Your task to perform on an android device: turn on data saver in the chrome app Image 0: 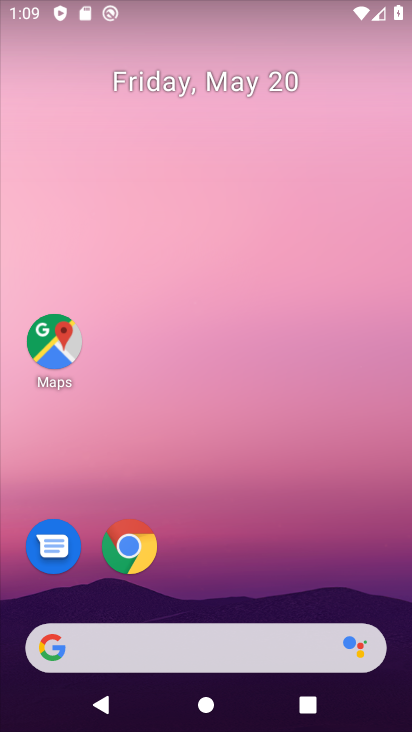
Step 0: click (119, 550)
Your task to perform on an android device: turn on data saver in the chrome app Image 1: 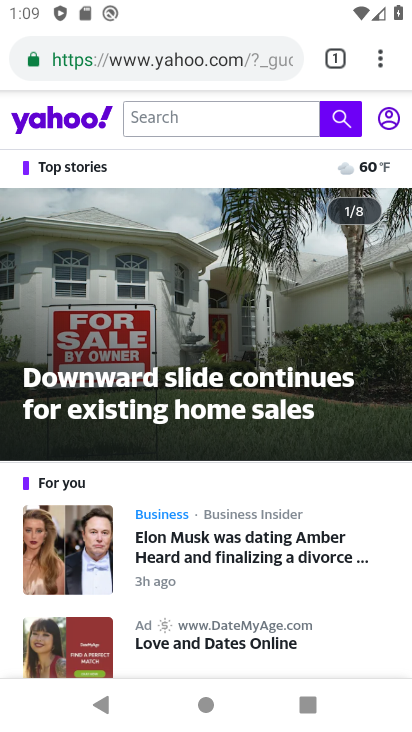
Step 1: click (384, 61)
Your task to perform on an android device: turn on data saver in the chrome app Image 2: 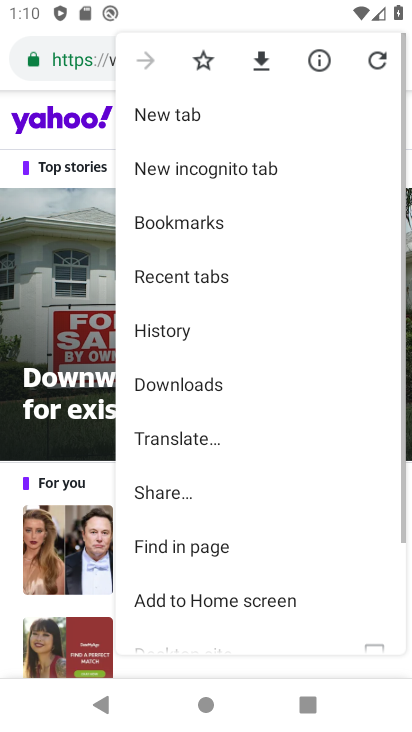
Step 2: drag from (195, 577) to (328, 93)
Your task to perform on an android device: turn on data saver in the chrome app Image 3: 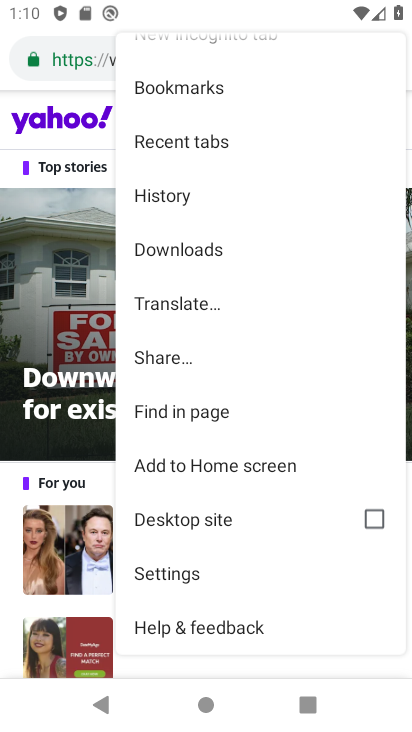
Step 3: click (206, 576)
Your task to perform on an android device: turn on data saver in the chrome app Image 4: 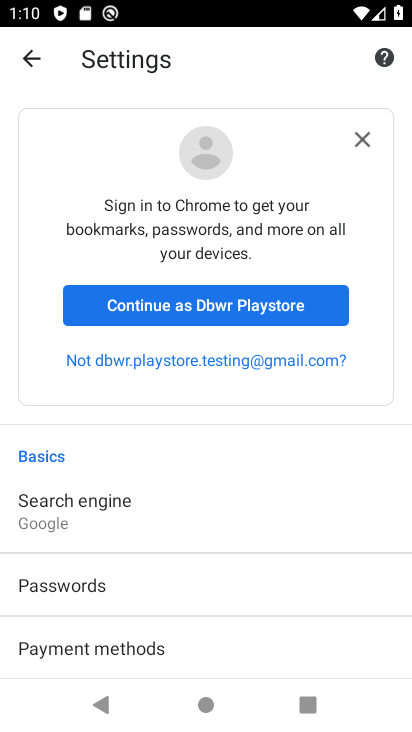
Step 4: click (358, 146)
Your task to perform on an android device: turn on data saver in the chrome app Image 5: 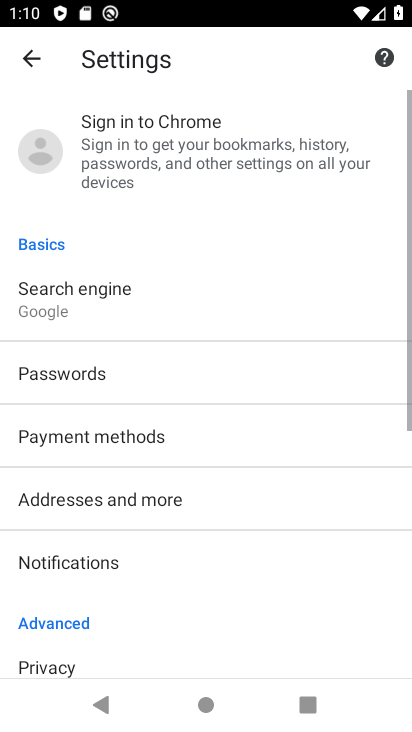
Step 5: drag from (15, 608) to (249, 228)
Your task to perform on an android device: turn on data saver in the chrome app Image 6: 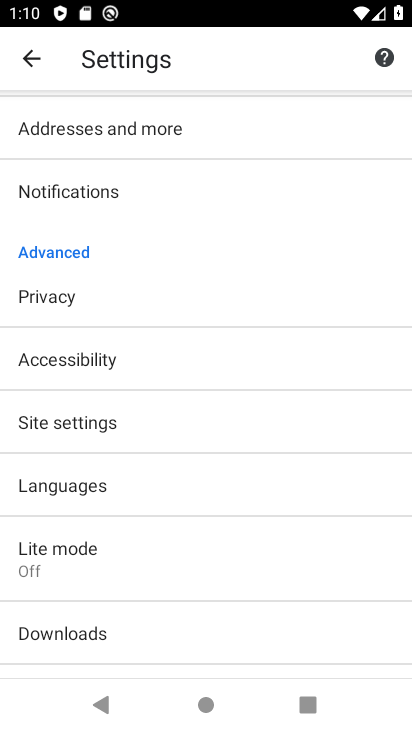
Step 6: drag from (12, 618) to (197, 267)
Your task to perform on an android device: turn on data saver in the chrome app Image 7: 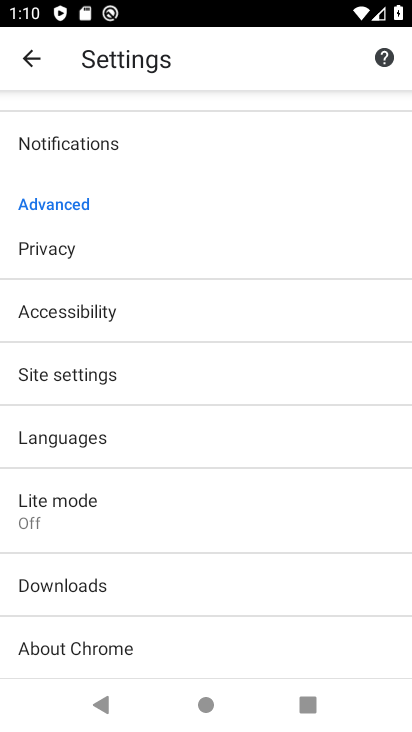
Step 7: click (97, 373)
Your task to perform on an android device: turn on data saver in the chrome app Image 8: 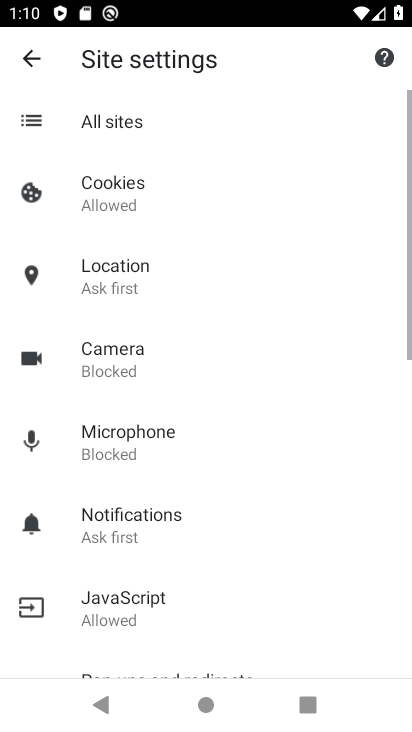
Step 8: drag from (24, 650) to (218, 171)
Your task to perform on an android device: turn on data saver in the chrome app Image 9: 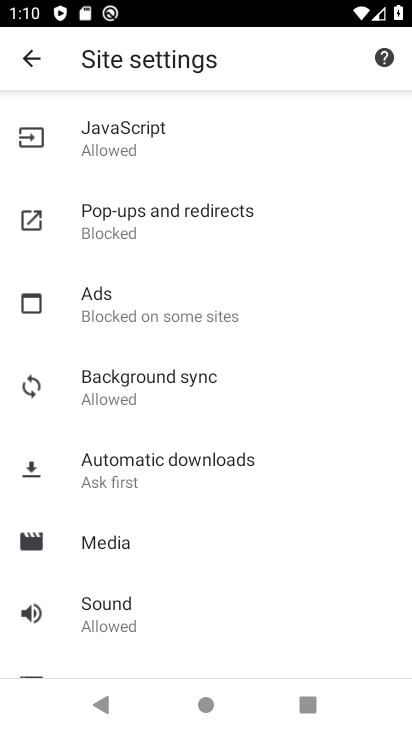
Step 9: drag from (36, 507) to (223, 154)
Your task to perform on an android device: turn on data saver in the chrome app Image 10: 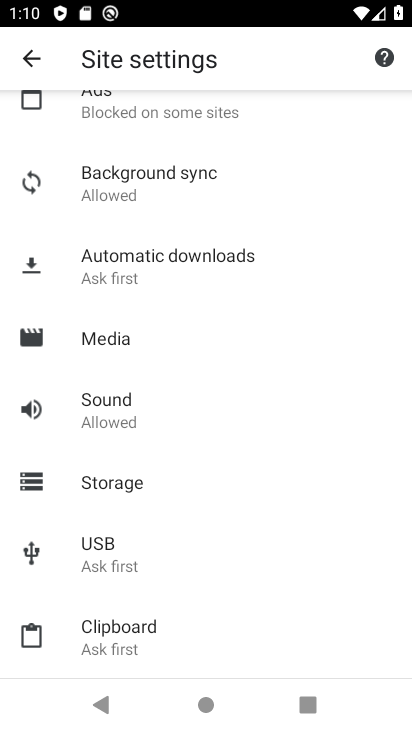
Step 10: drag from (228, 127) to (162, 722)
Your task to perform on an android device: turn on data saver in the chrome app Image 11: 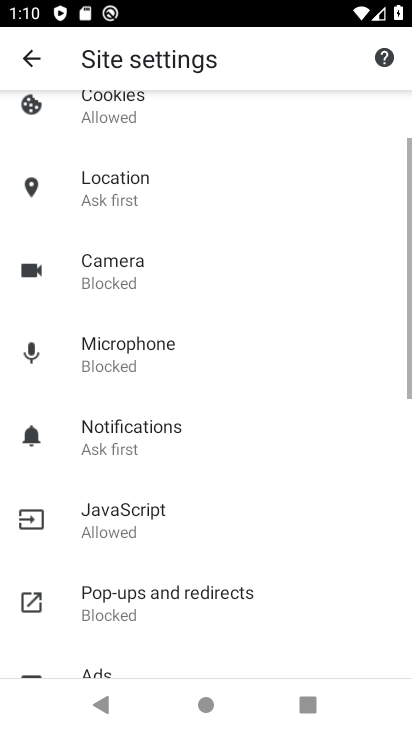
Step 11: drag from (185, 173) to (163, 729)
Your task to perform on an android device: turn on data saver in the chrome app Image 12: 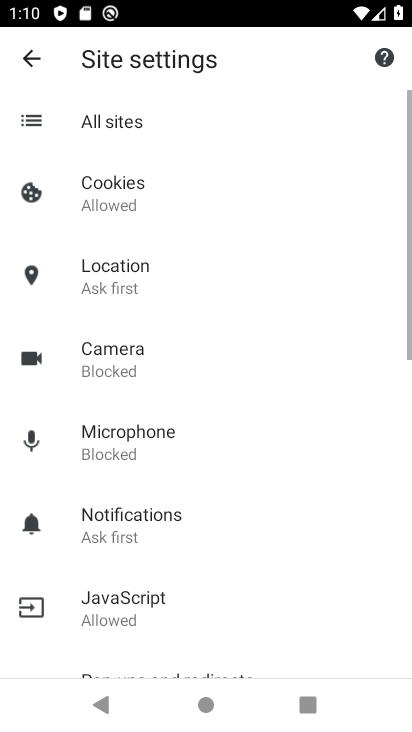
Step 12: drag from (150, 634) to (252, 271)
Your task to perform on an android device: turn on data saver in the chrome app Image 13: 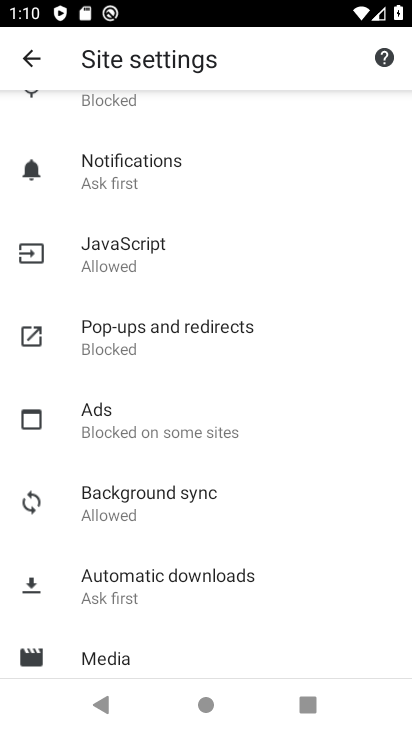
Step 13: drag from (141, 604) to (245, 227)
Your task to perform on an android device: turn on data saver in the chrome app Image 14: 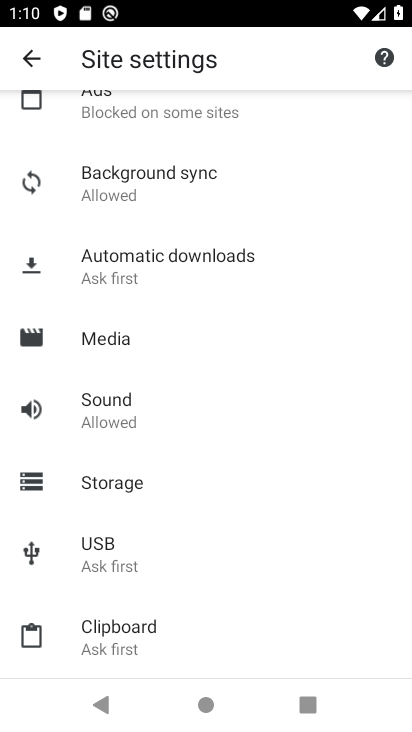
Step 14: drag from (138, 607) to (246, 247)
Your task to perform on an android device: turn on data saver in the chrome app Image 15: 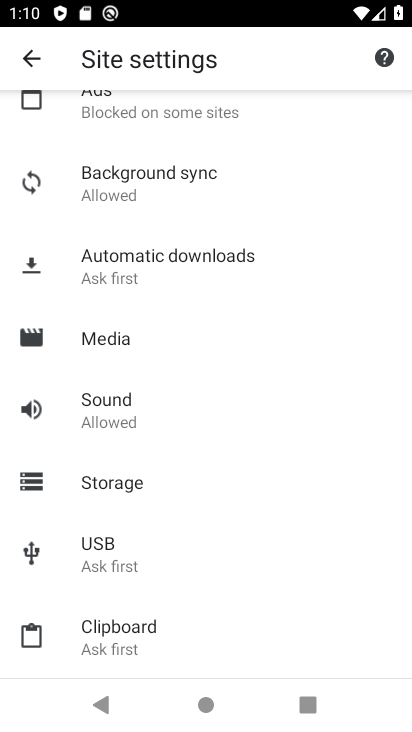
Step 15: drag from (223, 208) to (209, 585)
Your task to perform on an android device: turn on data saver in the chrome app Image 16: 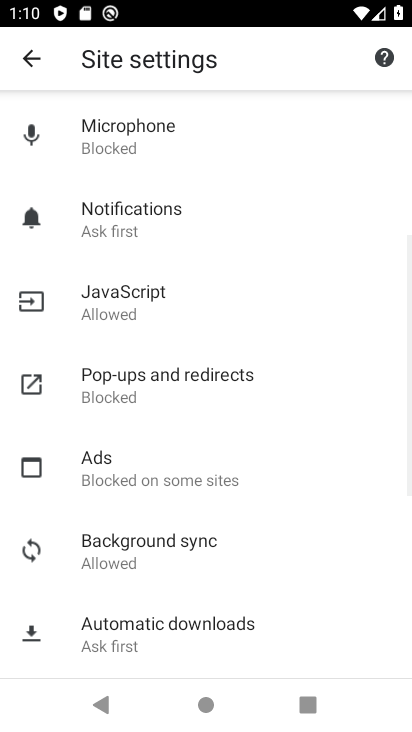
Step 16: drag from (182, 94) to (249, 534)
Your task to perform on an android device: turn on data saver in the chrome app Image 17: 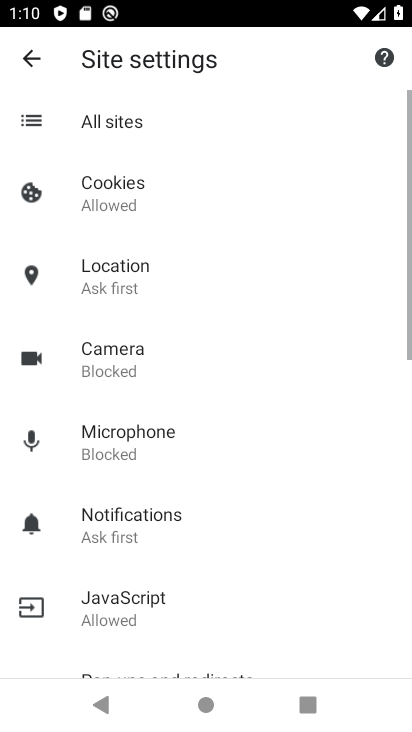
Step 17: press back button
Your task to perform on an android device: turn on data saver in the chrome app Image 18: 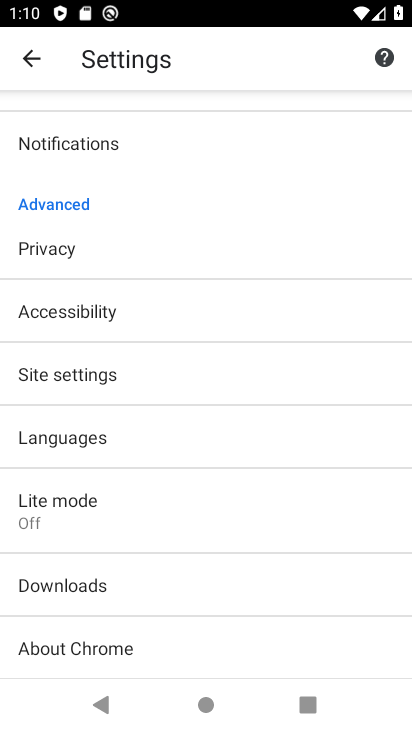
Step 18: click (106, 488)
Your task to perform on an android device: turn on data saver in the chrome app Image 19: 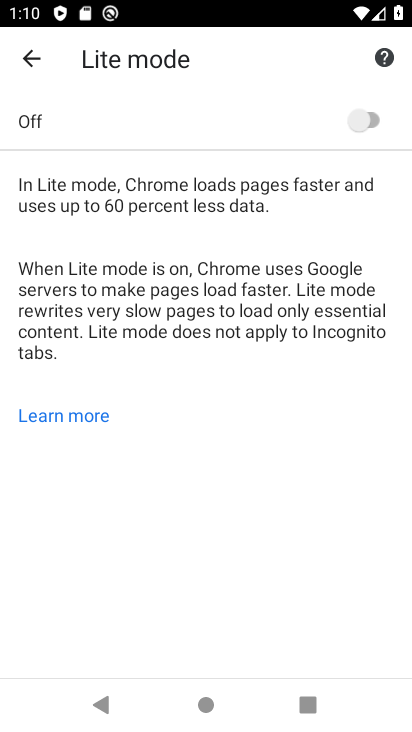
Step 19: click (364, 123)
Your task to perform on an android device: turn on data saver in the chrome app Image 20: 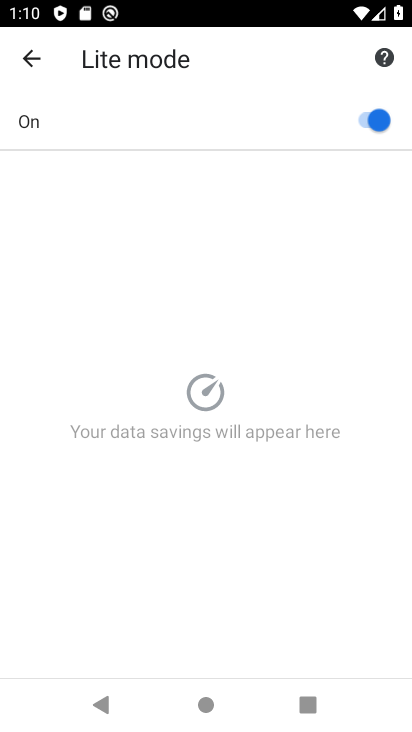
Step 20: task complete